Your task to perform on an android device: What's the news in Pakistan? Image 0: 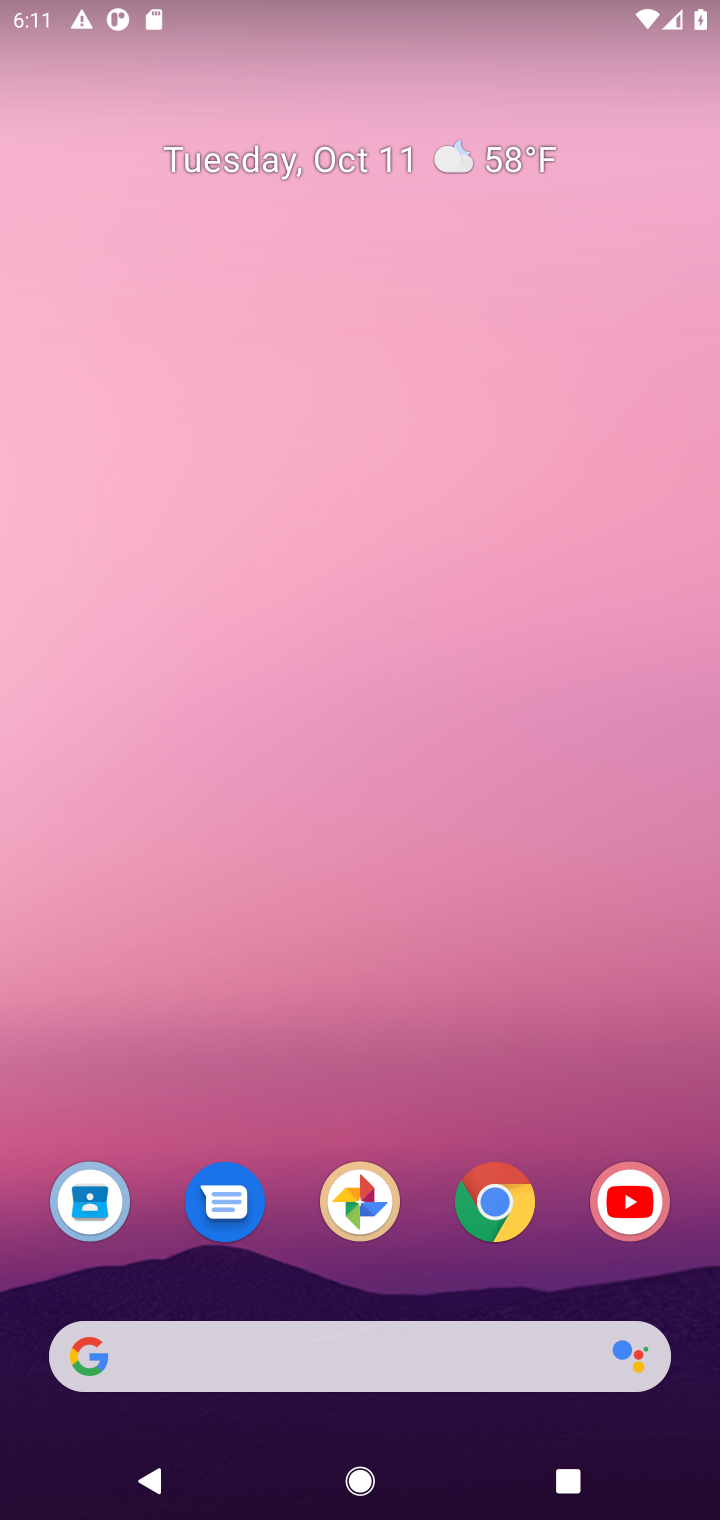
Step 0: click (485, 1224)
Your task to perform on an android device: What's the news in Pakistan? Image 1: 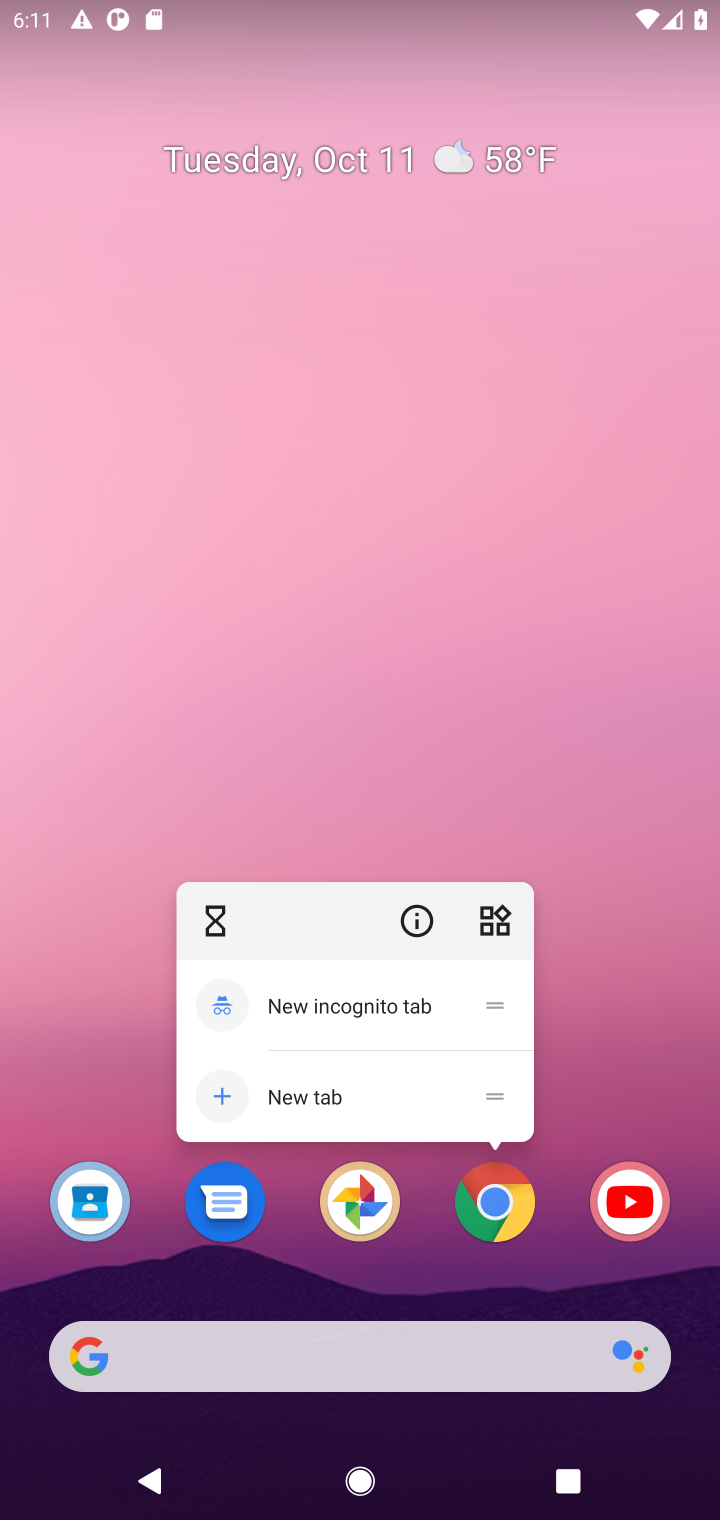
Step 1: click (507, 1201)
Your task to perform on an android device: What's the news in Pakistan? Image 2: 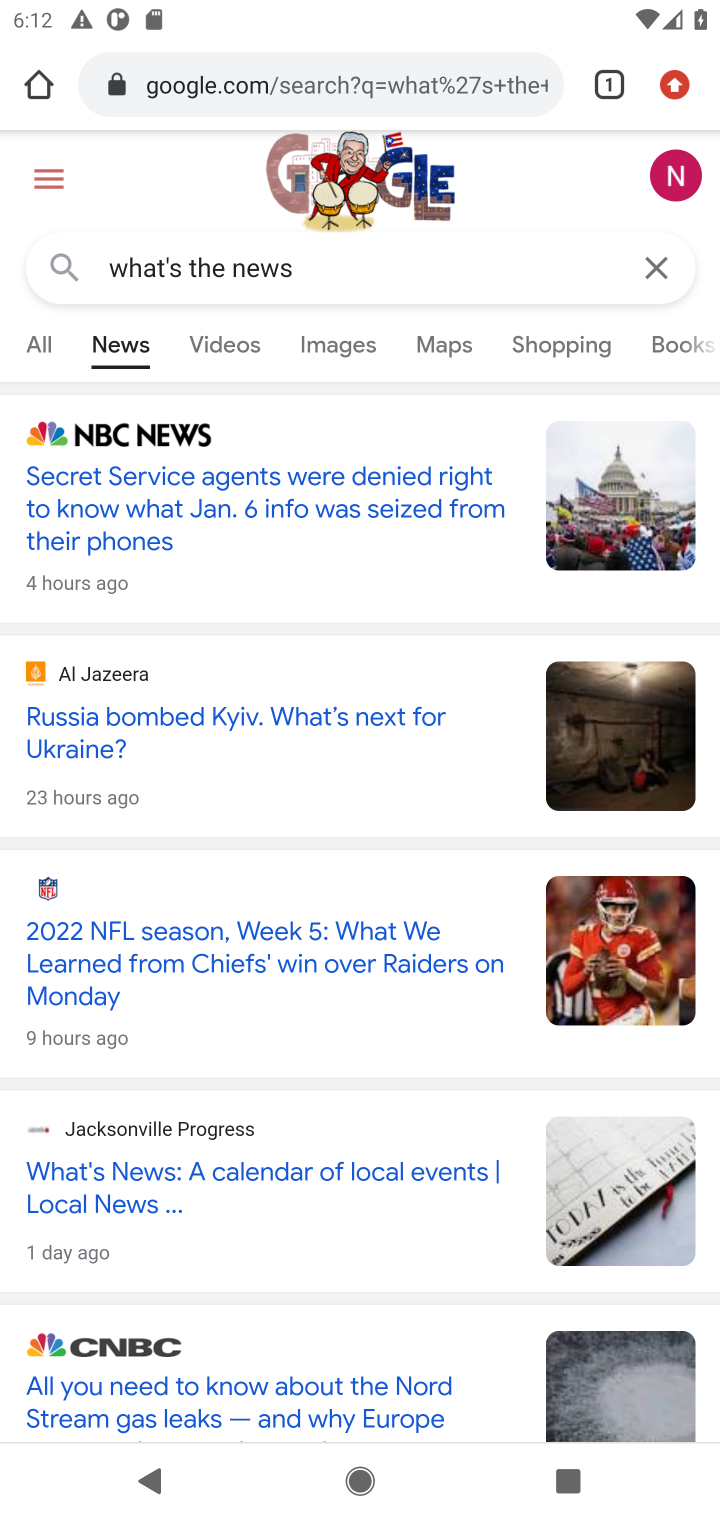
Step 2: click (150, 85)
Your task to perform on an android device: What's the news in Pakistan? Image 3: 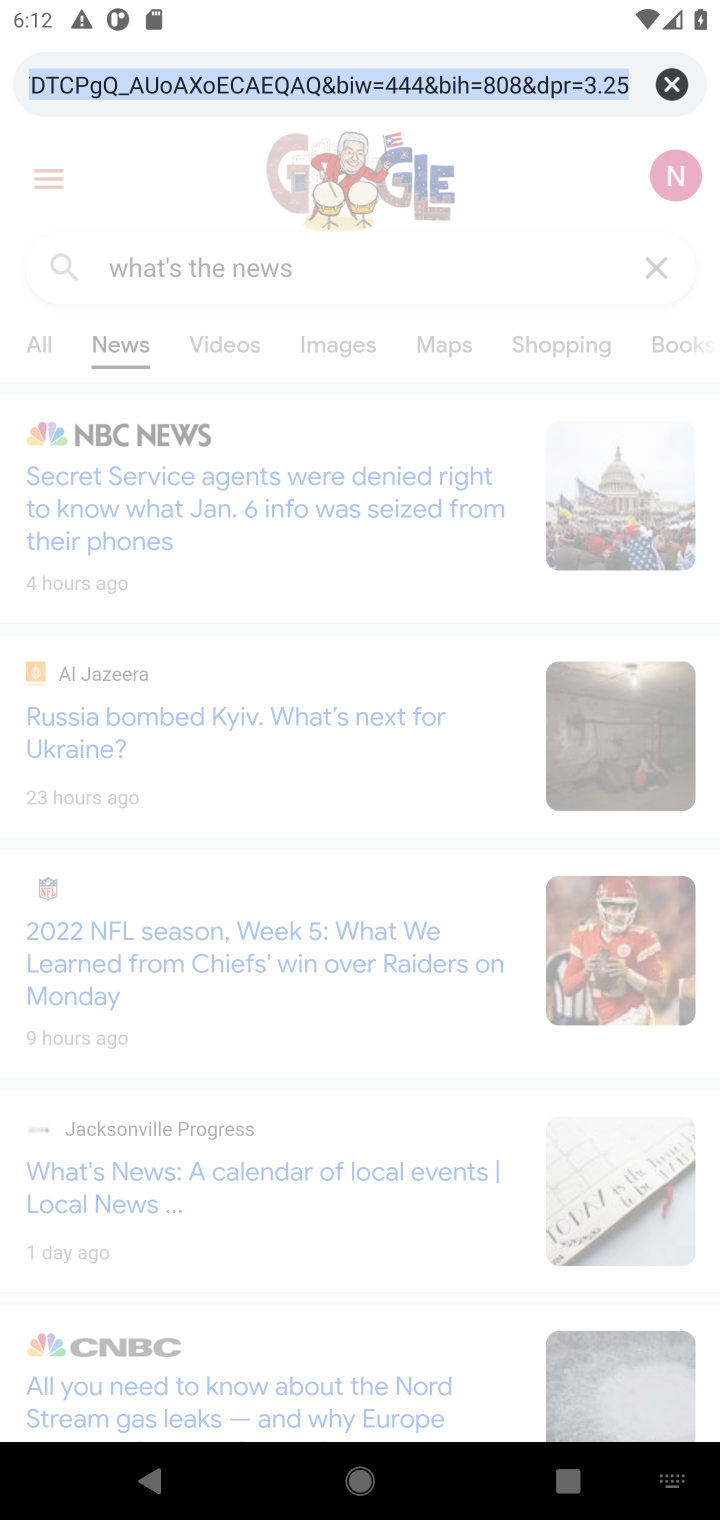
Step 3: type "What's the news in Pakistan?"
Your task to perform on an android device: What's the news in Pakistan? Image 4: 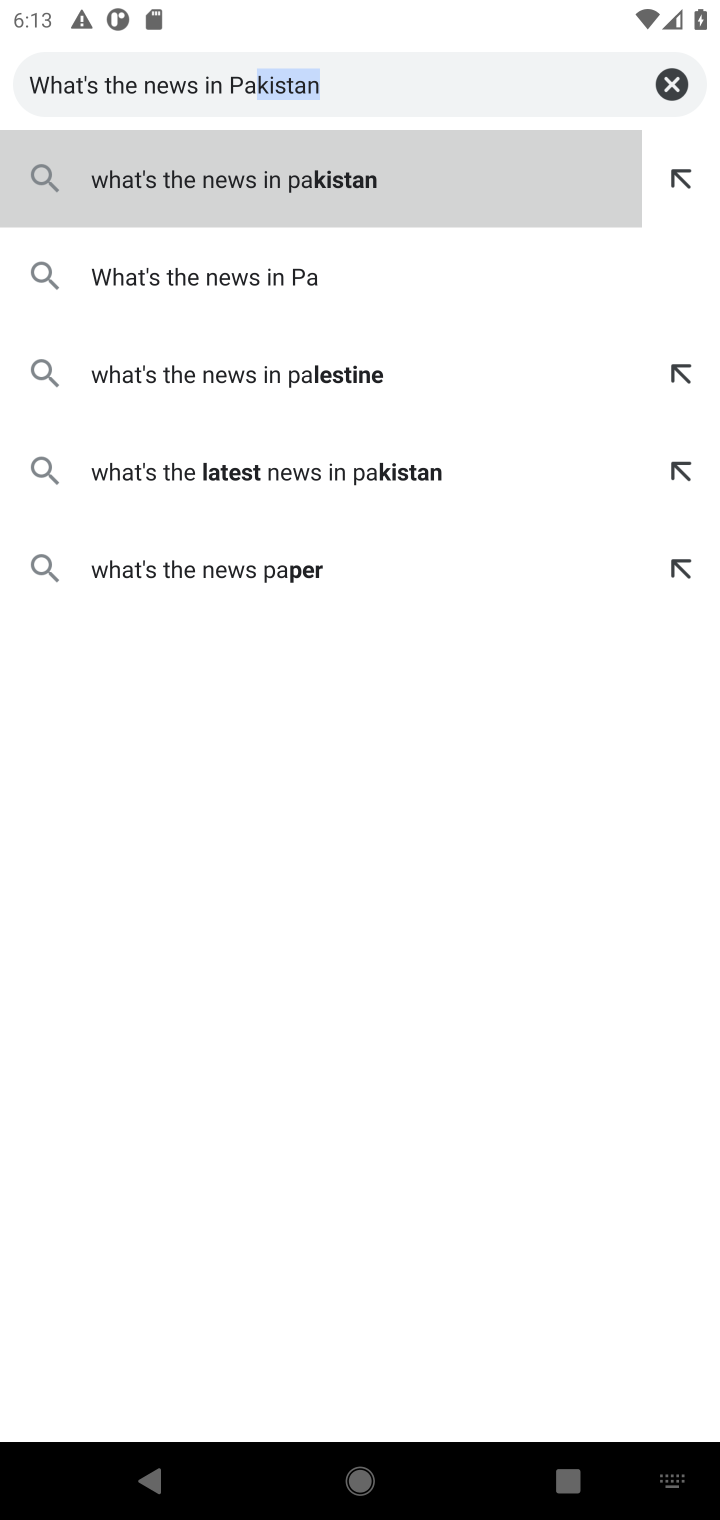
Step 4: click (305, 186)
Your task to perform on an android device: What's the news in Pakistan? Image 5: 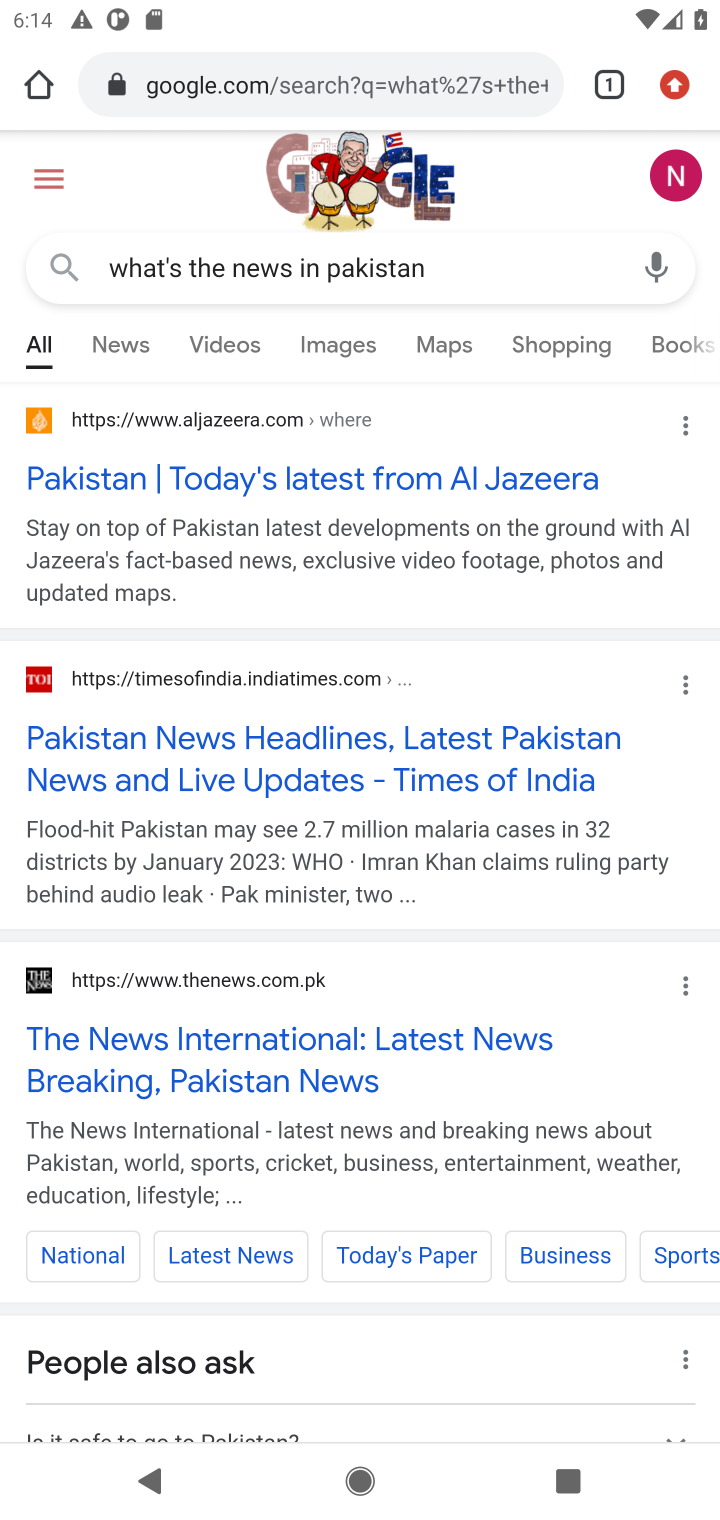
Step 5: click (121, 346)
Your task to perform on an android device: What's the news in Pakistan? Image 6: 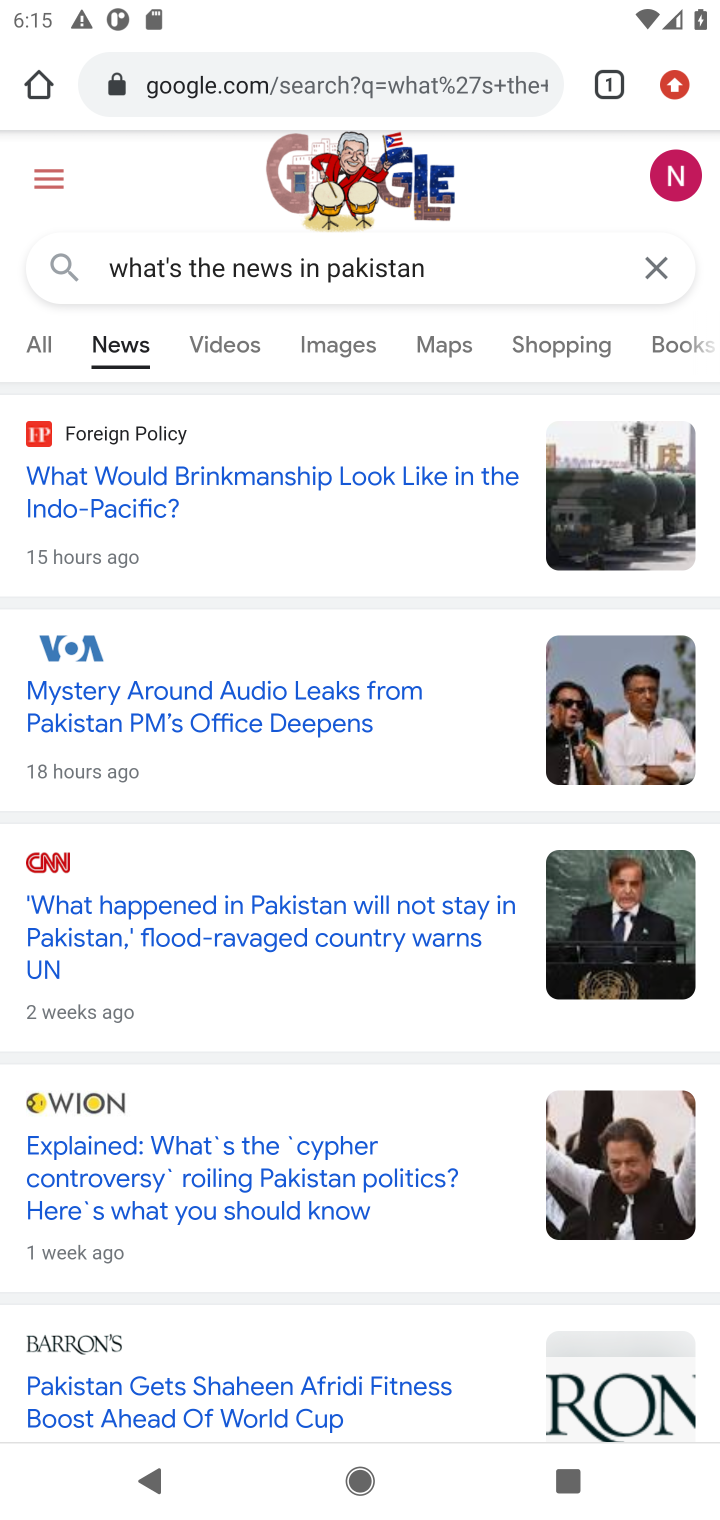
Step 6: task complete